Your task to perform on an android device: open sync settings in chrome Image 0: 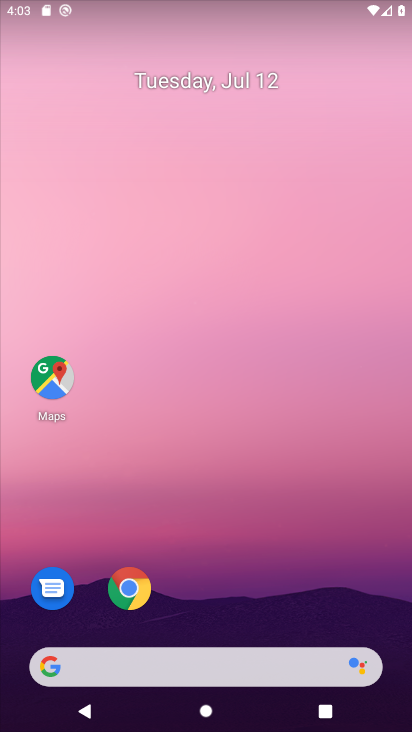
Step 0: drag from (204, 642) to (324, 33)
Your task to perform on an android device: open sync settings in chrome Image 1: 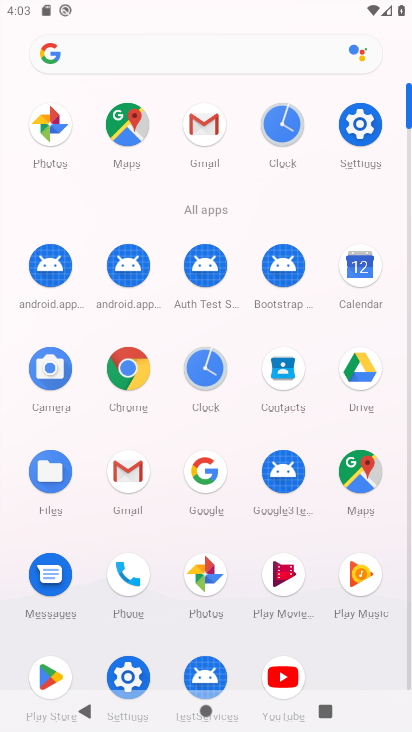
Step 1: click (137, 378)
Your task to perform on an android device: open sync settings in chrome Image 2: 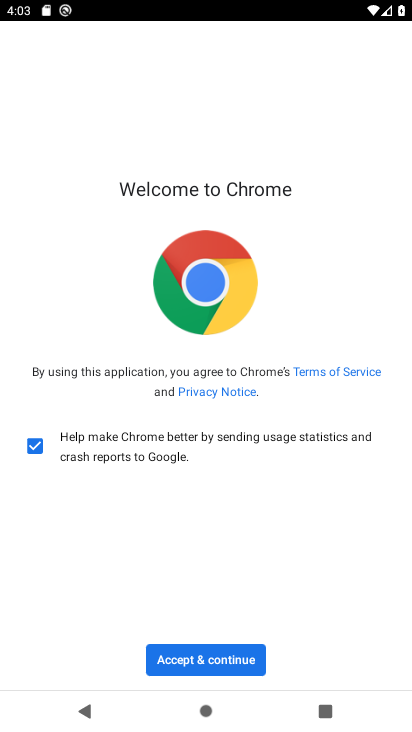
Step 2: click (227, 650)
Your task to perform on an android device: open sync settings in chrome Image 3: 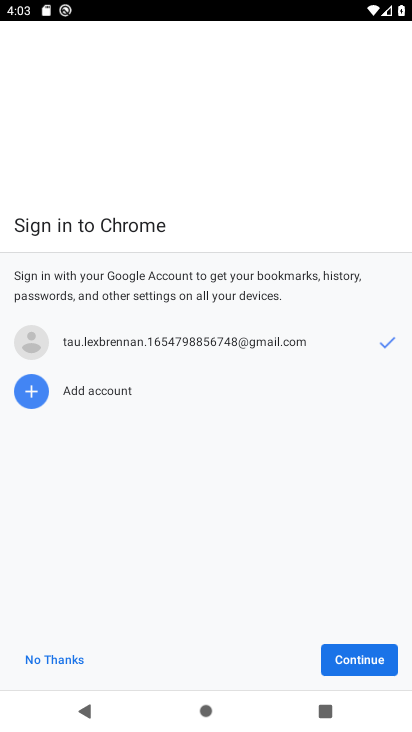
Step 3: click (379, 662)
Your task to perform on an android device: open sync settings in chrome Image 4: 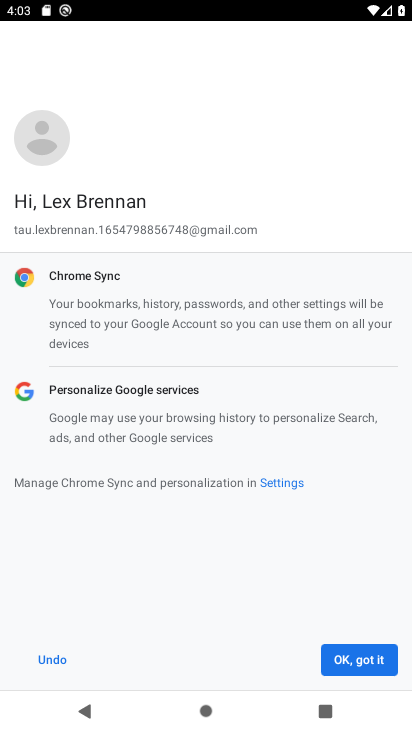
Step 4: click (375, 664)
Your task to perform on an android device: open sync settings in chrome Image 5: 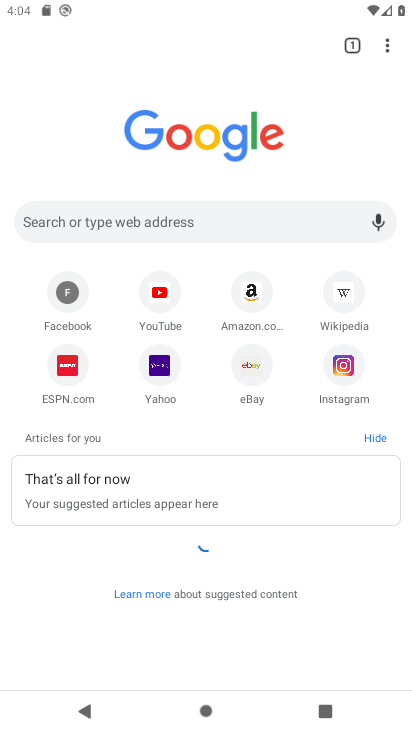
Step 5: drag from (392, 50) to (239, 371)
Your task to perform on an android device: open sync settings in chrome Image 6: 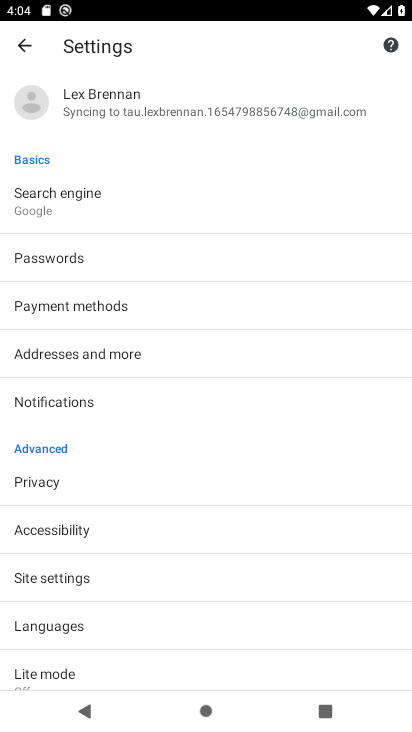
Step 6: click (190, 118)
Your task to perform on an android device: open sync settings in chrome Image 7: 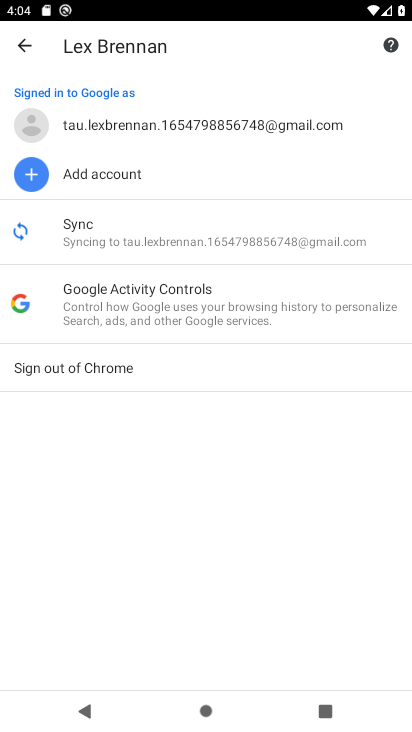
Step 7: click (153, 226)
Your task to perform on an android device: open sync settings in chrome Image 8: 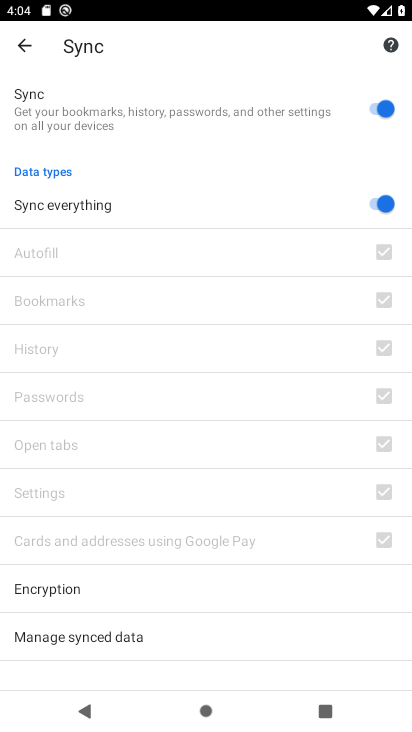
Step 8: task complete